Your task to perform on an android device: stop showing notifications on the lock screen Image 0: 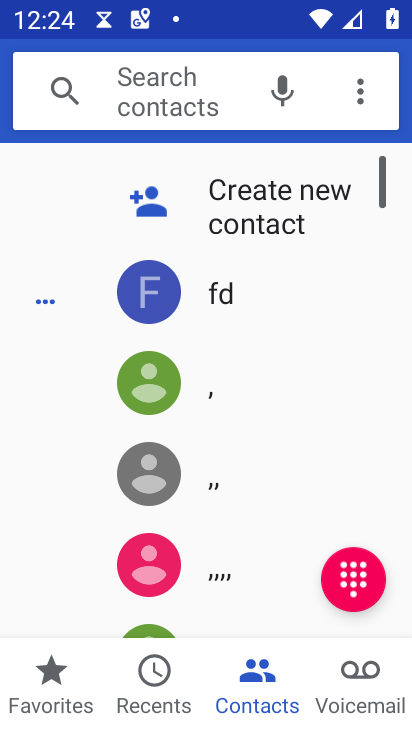
Step 0: press home button
Your task to perform on an android device: stop showing notifications on the lock screen Image 1: 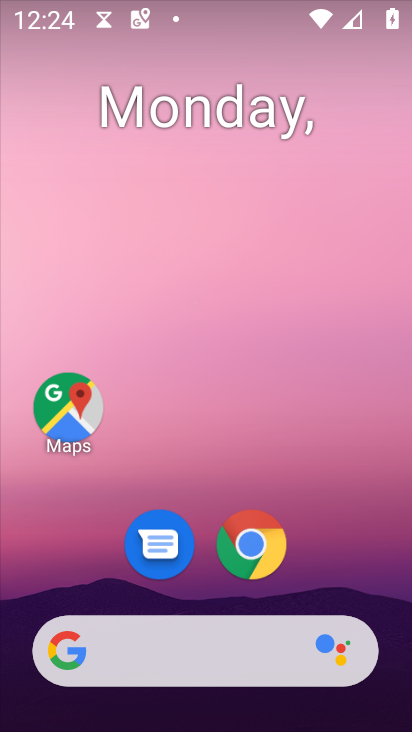
Step 1: drag from (323, 503) to (325, 209)
Your task to perform on an android device: stop showing notifications on the lock screen Image 2: 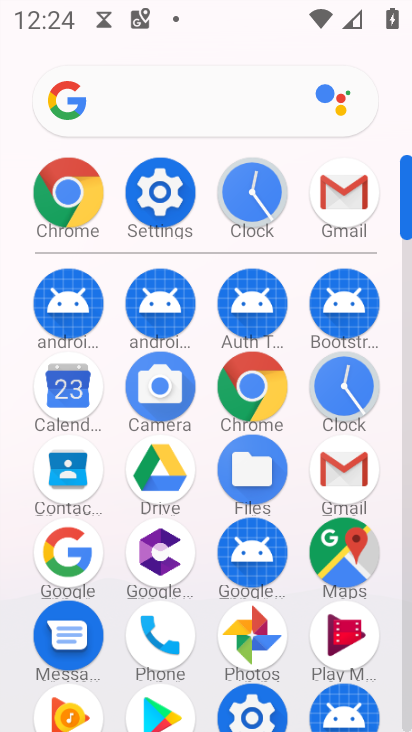
Step 2: click (143, 180)
Your task to perform on an android device: stop showing notifications on the lock screen Image 3: 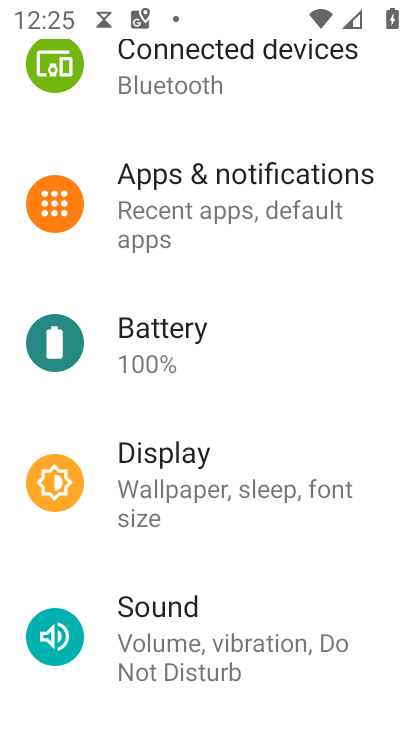
Step 3: click (173, 194)
Your task to perform on an android device: stop showing notifications on the lock screen Image 4: 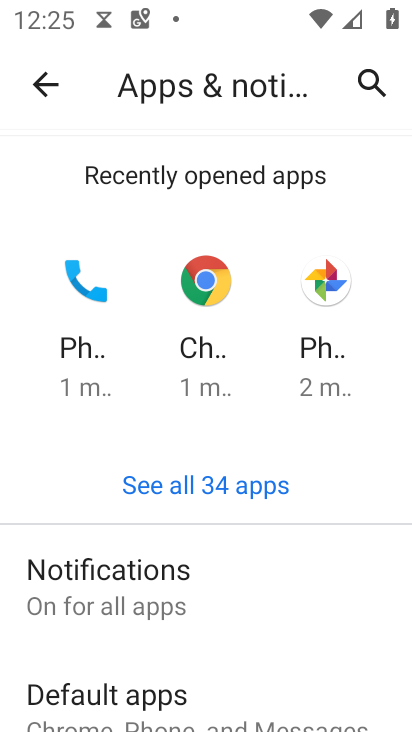
Step 4: click (217, 589)
Your task to perform on an android device: stop showing notifications on the lock screen Image 5: 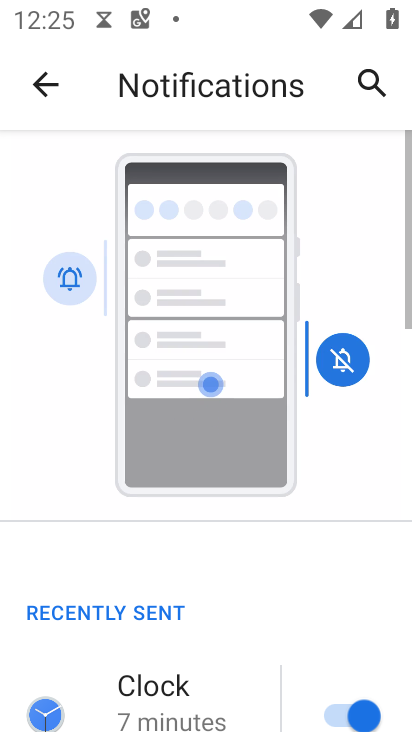
Step 5: drag from (217, 589) to (285, 134)
Your task to perform on an android device: stop showing notifications on the lock screen Image 6: 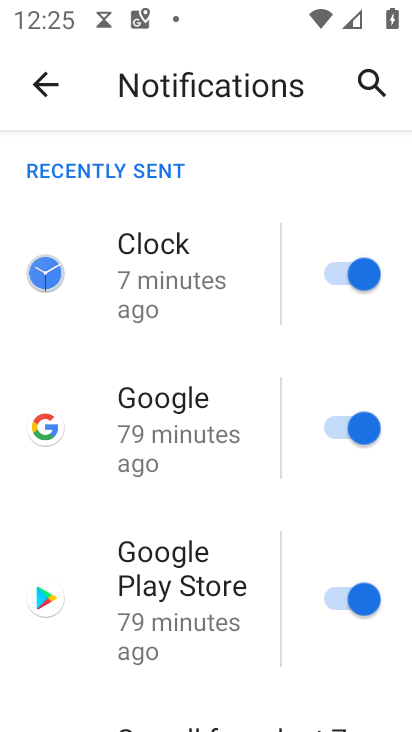
Step 6: drag from (219, 549) to (240, 161)
Your task to perform on an android device: stop showing notifications on the lock screen Image 7: 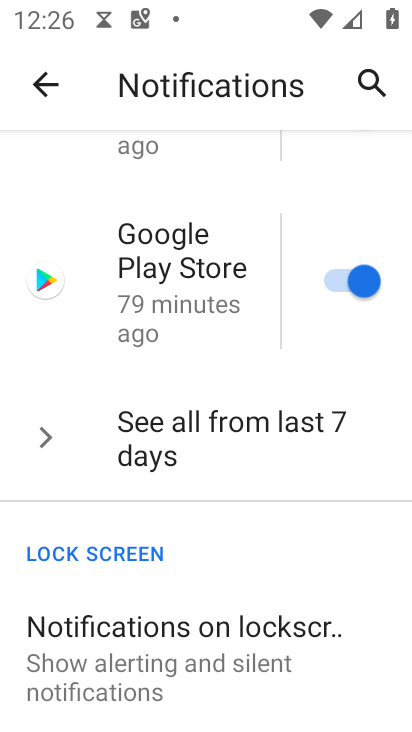
Step 7: click (190, 633)
Your task to perform on an android device: stop showing notifications on the lock screen Image 8: 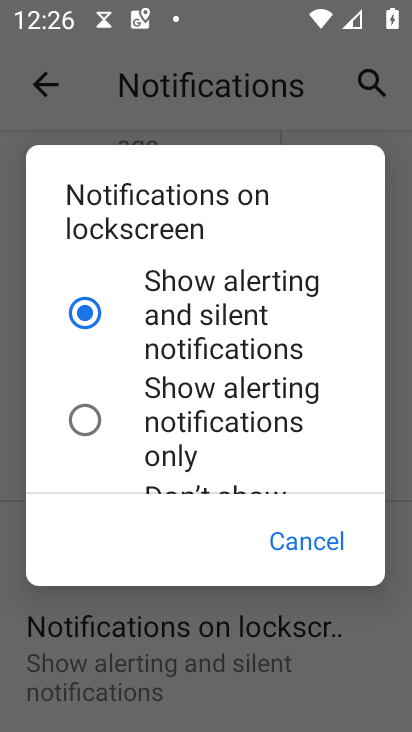
Step 8: drag from (197, 430) to (229, 190)
Your task to perform on an android device: stop showing notifications on the lock screen Image 9: 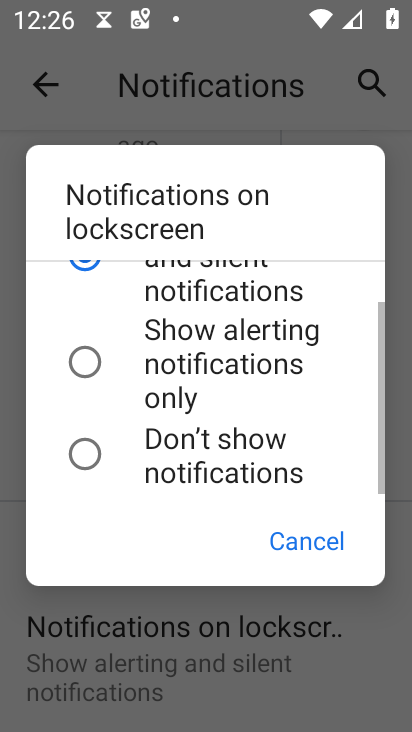
Step 9: click (165, 475)
Your task to perform on an android device: stop showing notifications on the lock screen Image 10: 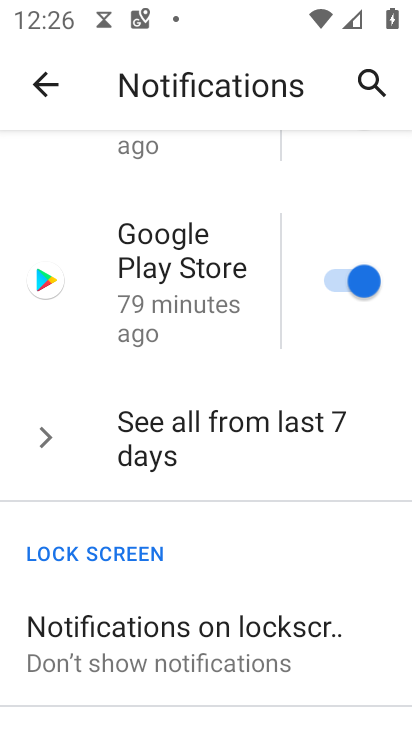
Step 10: task complete